Your task to perform on an android device: check battery use Image 0: 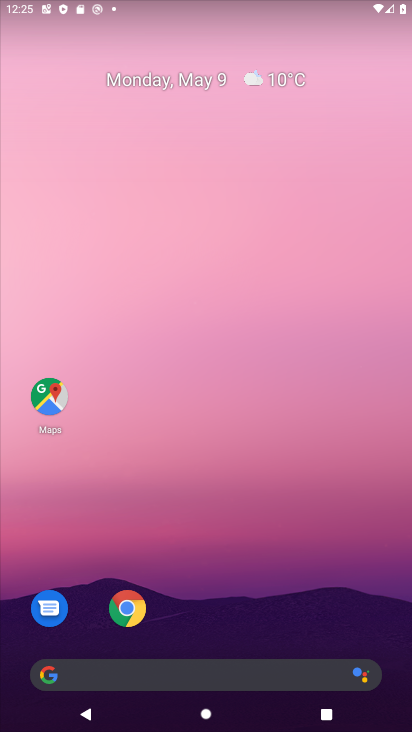
Step 0: drag from (262, 572) to (279, 24)
Your task to perform on an android device: check battery use Image 1: 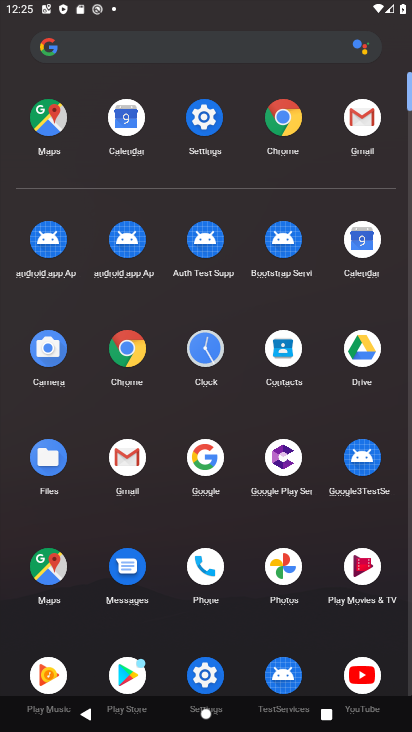
Step 1: click (211, 127)
Your task to perform on an android device: check battery use Image 2: 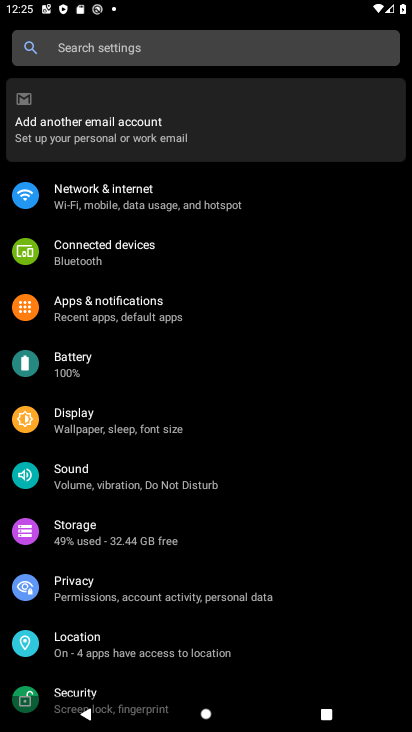
Step 2: click (86, 361)
Your task to perform on an android device: check battery use Image 3: 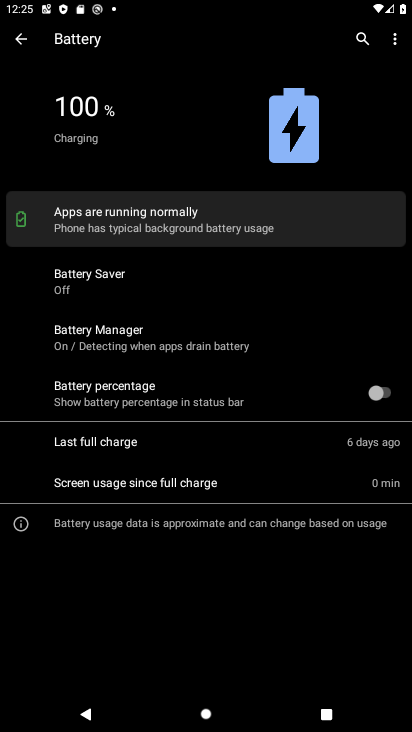
Step 3: task complete